Your task to perform on an android device: open wifi settings Image 0: 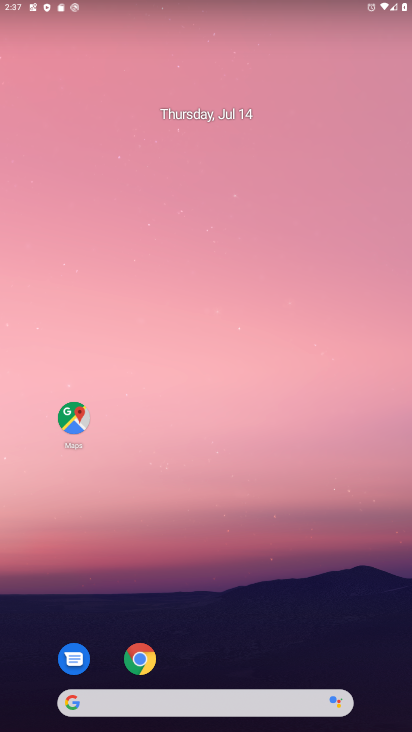
Step 0: press home button
Your task to perform on an android device: open wifi settings Image 1: 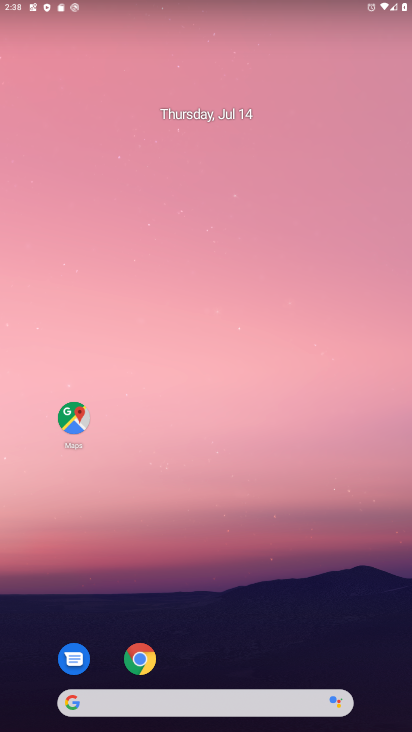
Step 1: drag from (325, 606) to (228, 0)
Your task to perform on an android device: open wifi settings Image 2: 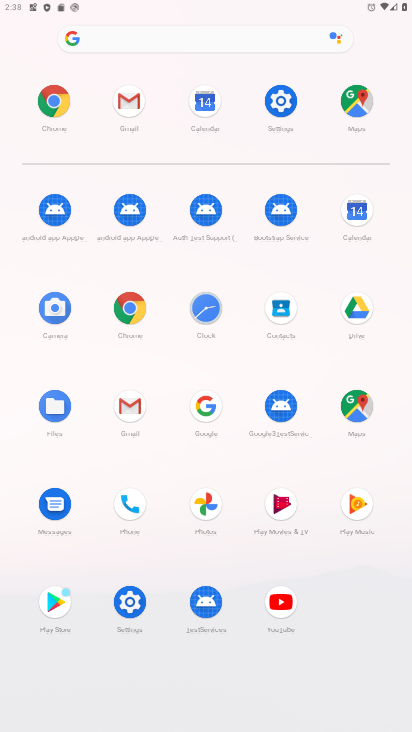
Step 2: click (287, 101)
Your task to perform on an android device: open wifi settings Image 3: 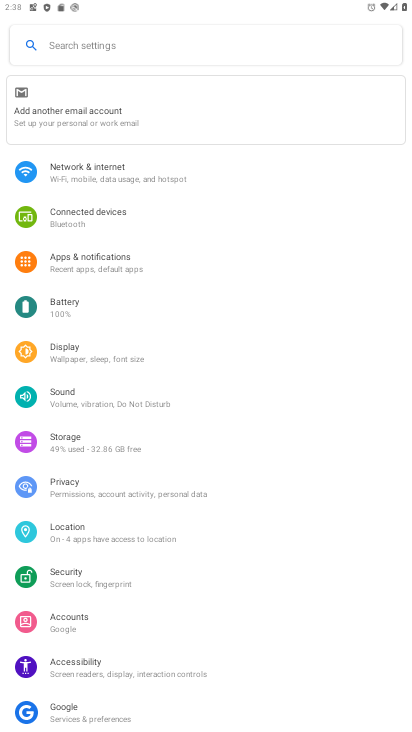
Step 3: click (69, 169)
Your task to perform on an android device: open wifi settings Image 4: 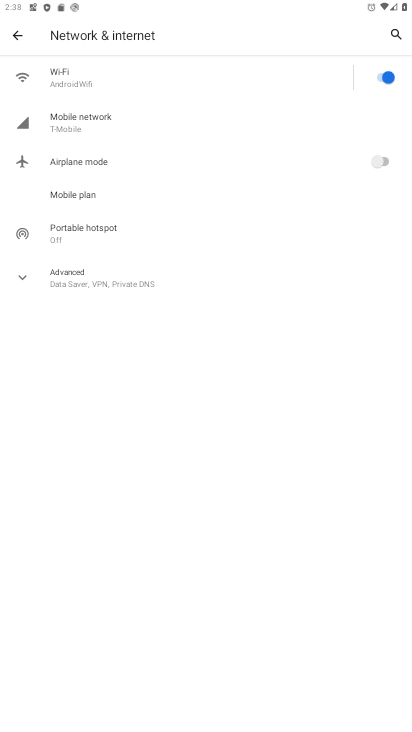
Step 4: click (106, 68)
Your task to perform on an android device: open wifi settings Image 5: 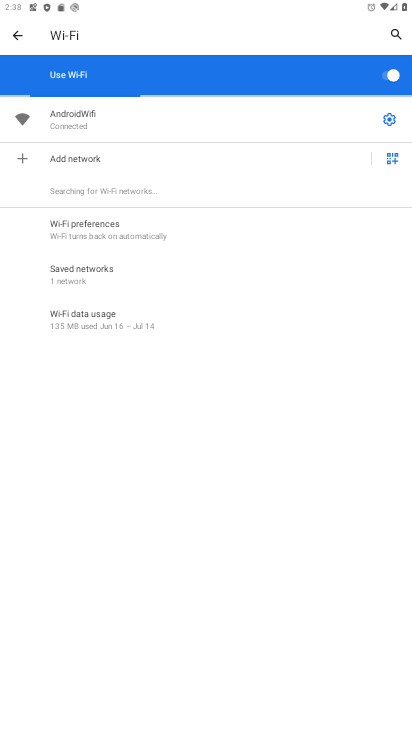
Step 5: task complete